Your task to perform on an android device: toggle airplane mode Image 0: 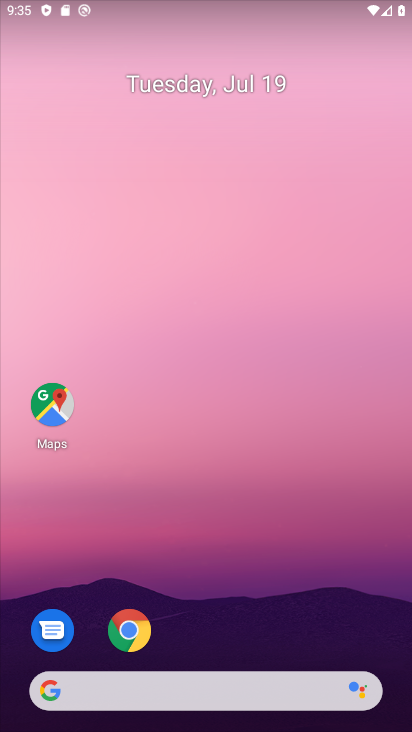
Step 0: drag from (337, 15) to (343, 477)
Your task to perform on an android device: toggle airplane mode Image 1: 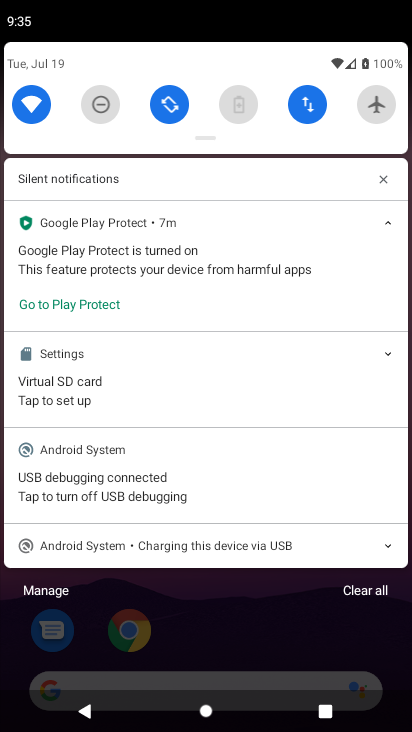
Step 1: task complete